Your task to perform on an android device: Search for vegetarian restaurants on Maps Image 0: 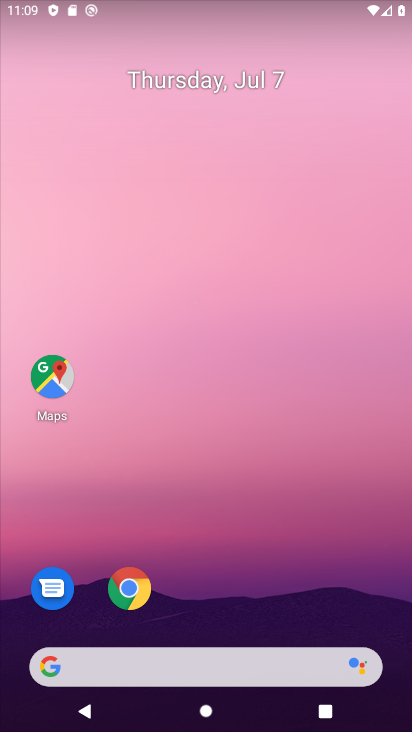
Step 0: click (52, 375)
Your task to perform on an android device: Search for vegetarian restaurants on Maps Image 1: 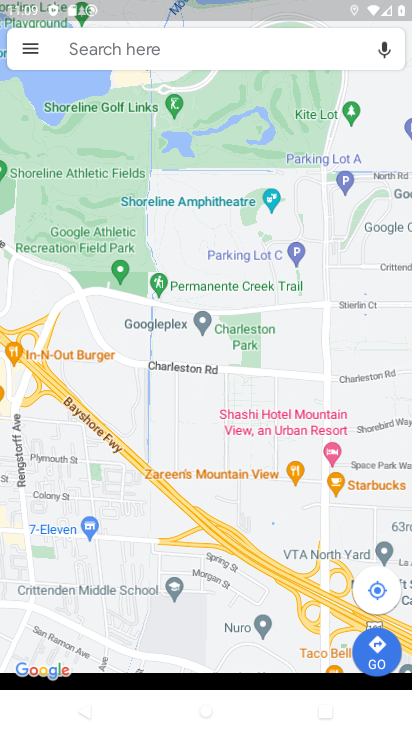
Step 1: click (135, 37)
Your task to perform on an android device: Search for vegetarian restaurants on Maps Image 2: 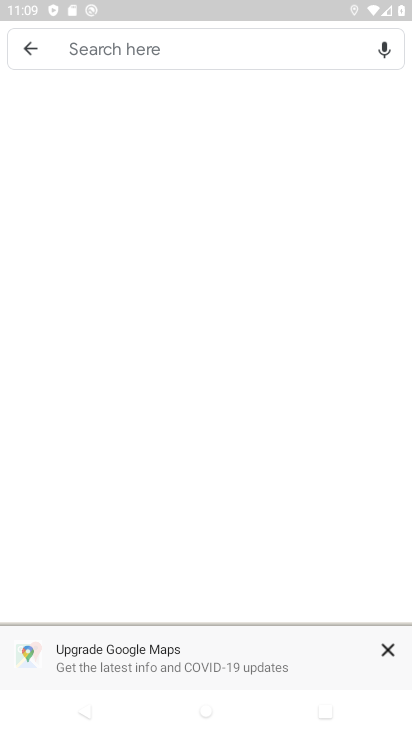
Step 2: click (74, 53)
Your task to perform on an android device: Search for vegetarian restaurants on Maps Image 3: 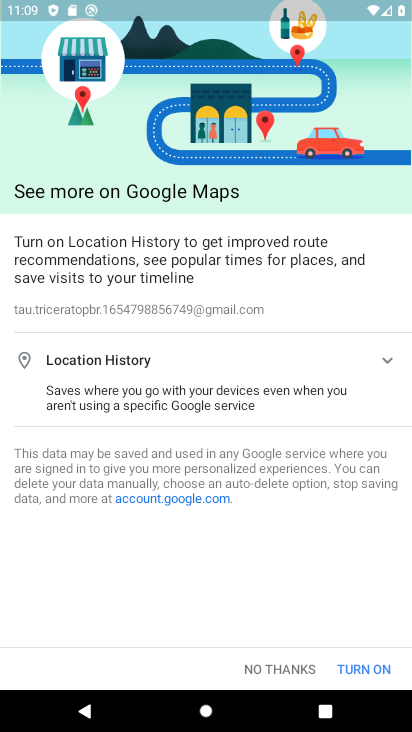
Step 3: click (352, 669)
Your task to perform on an android device: Search for vegetarian restaurants on Maps Image 4: 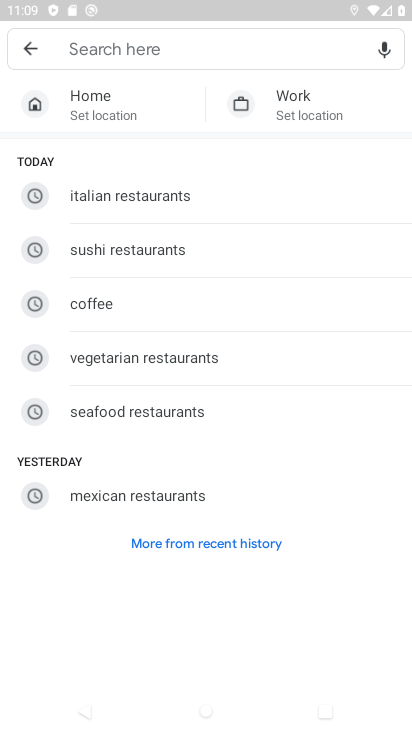
Step 4: type "vegetarian restaurants"
Your task to perform on an android device: Search for vegetarian restaurants on Maps Image 5: 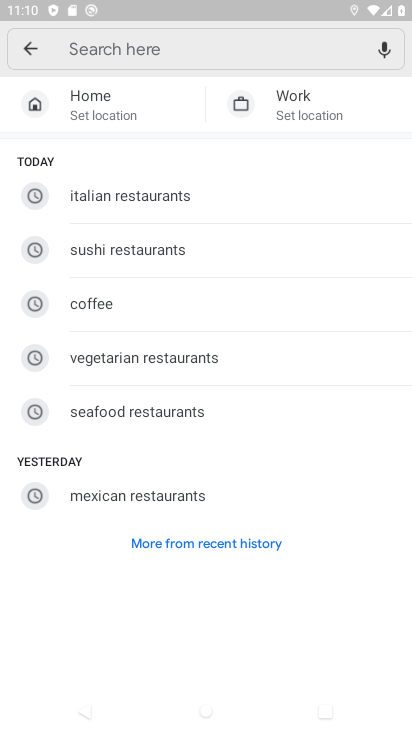
Step 5: click (114, 44)
Your task to perform on an android device: Search for vegetarian restaurants on Maps Image 6: 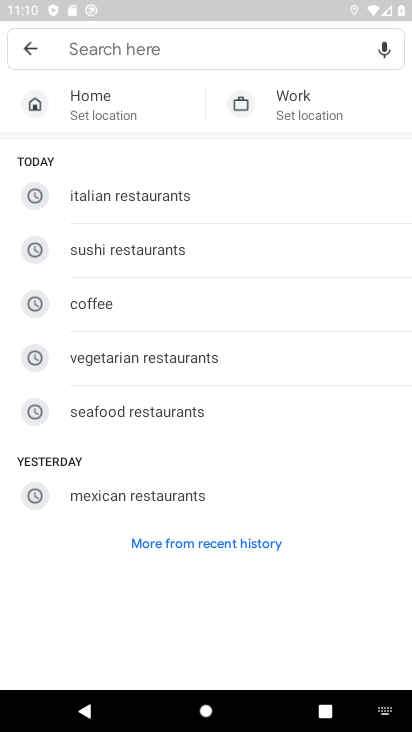
Step 6: type "vegetarian restaurants"
Your task to perform on an android device: Search for vegetarian restaurants on Maps Image 7: 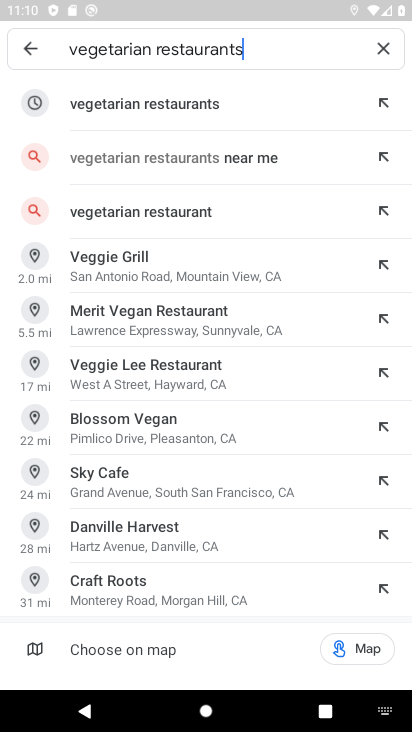
Step 7: click (191, 111)
Your task to perform on an android device: Search for vegetarian restaurants on Maps Image 8: 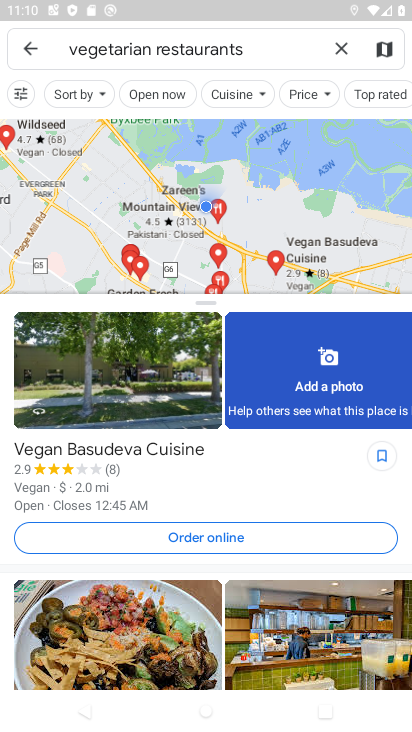
Step 8: task complete